Your task to perform on an android device: Turn on the flashlight Image 0: 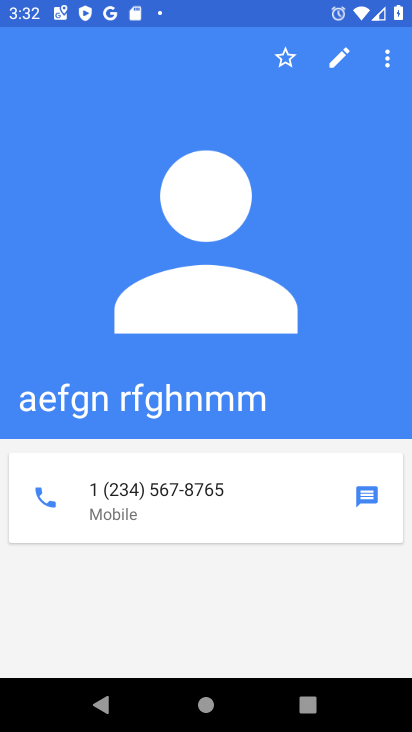
Step 0: press home button
Your task to perform on an android device: Turn on the flashlight Image 1: 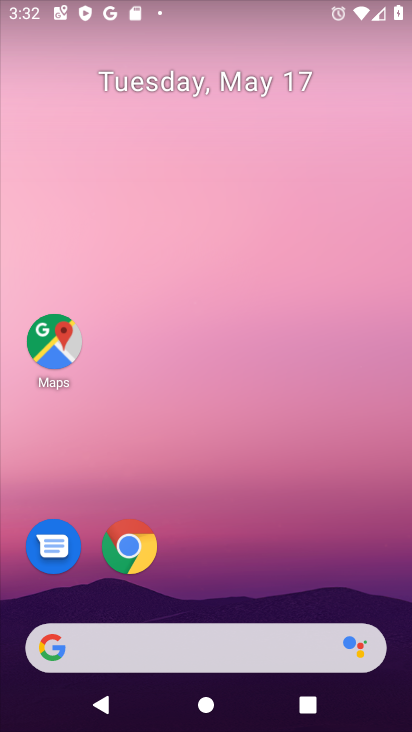
Step 1: drag from (395, 688) to (363, 176)
Your task to perform on an android device: Turn on the flashlight Image 2: 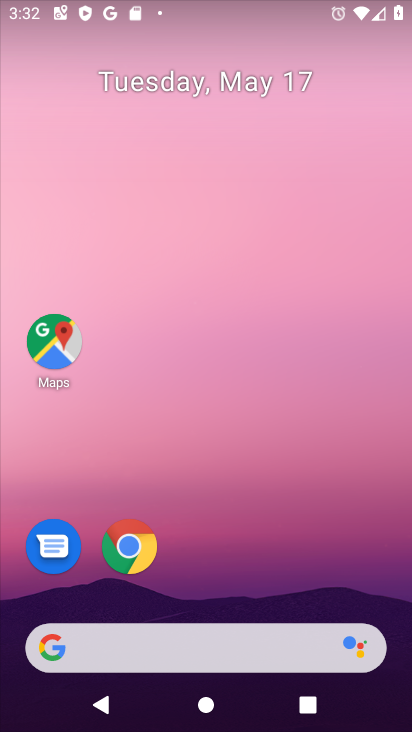
Step 2: click (371, 294)
Your task to perform on an android device: Turn on the flashlight Image 3: 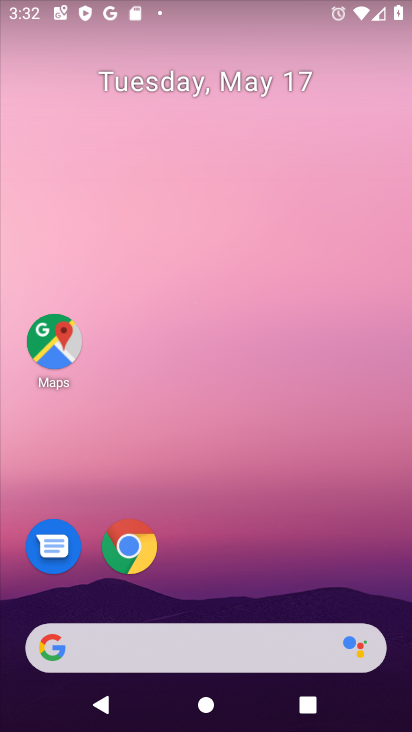
Step 3: drag from (403, 695) to (381, 276)
Your task to perform on an android device: Turn on the flashlight Image 4: 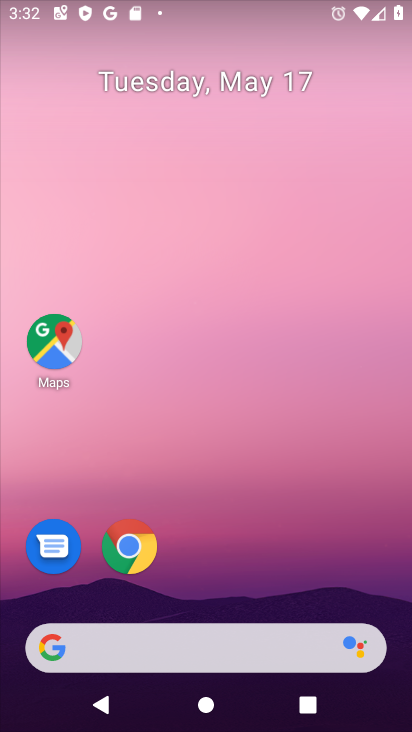
Step 4: drag from (396, 690) to (390, 540)
Your task to perform on an android device: Turn on the flashlight Image 5: 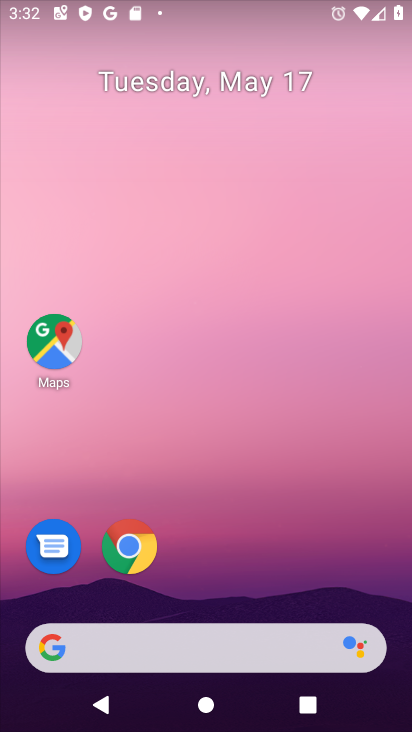
Step 5: drag from (395, 683) to (301, 91)
Your task to perform on an android device: Turn on the flashlight Image 6: 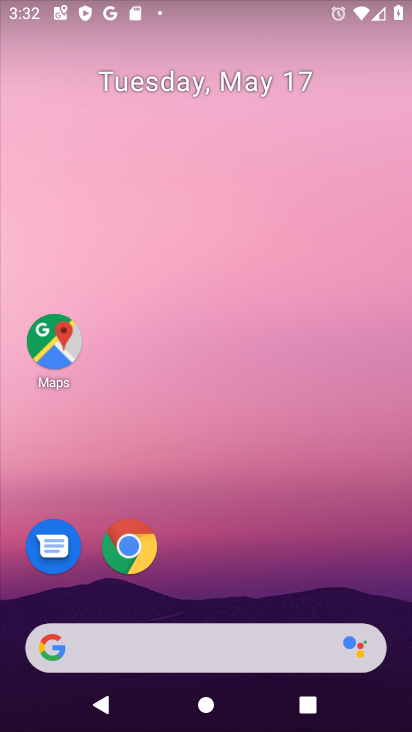
Step 6: drag from (392, 500) to (340, 119)
Your task to perform on an android device: Turn on the flashlight Image 7: 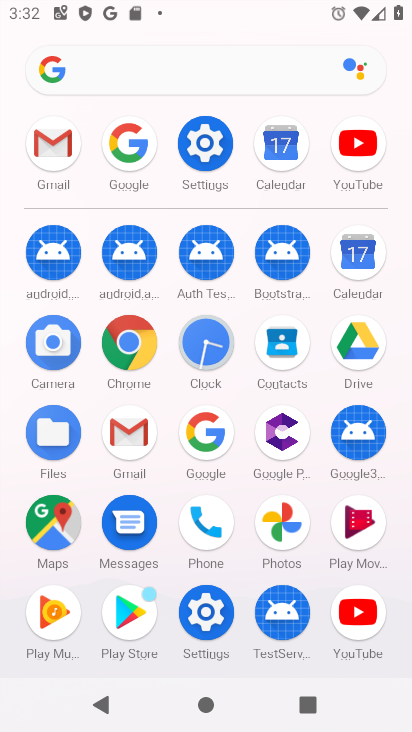
Step 7: click (207, 132)
Your task to perform on an android device: Turn on the flashlight Image 8: 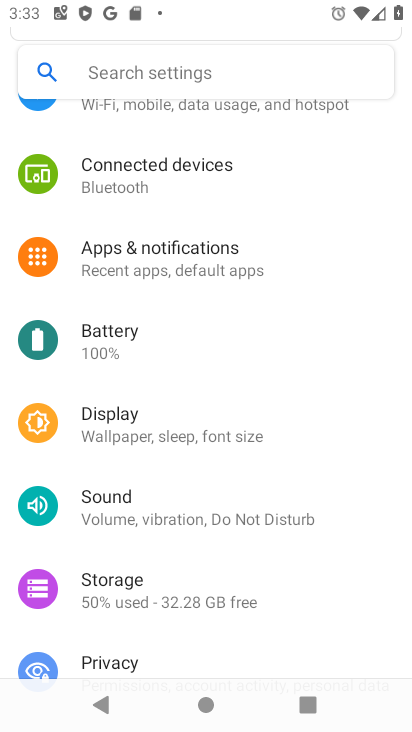
Step 8: click (152, 236)
Your task to perform on an android device: Turn on the flashlight Image 9: 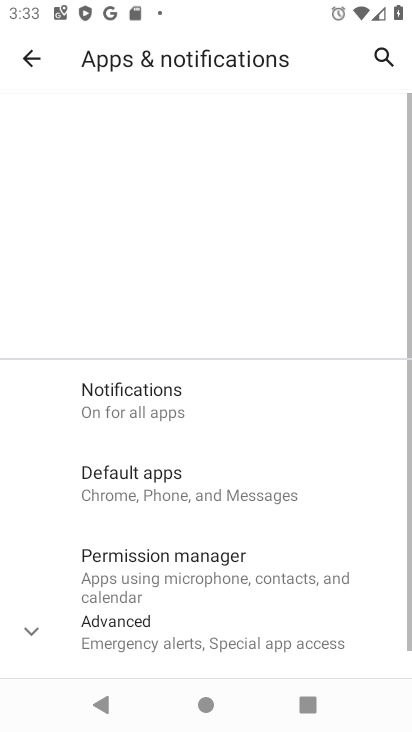
Step 9: task complete